Your task to perform on an android device: add a contact in the contacts app Image 0: 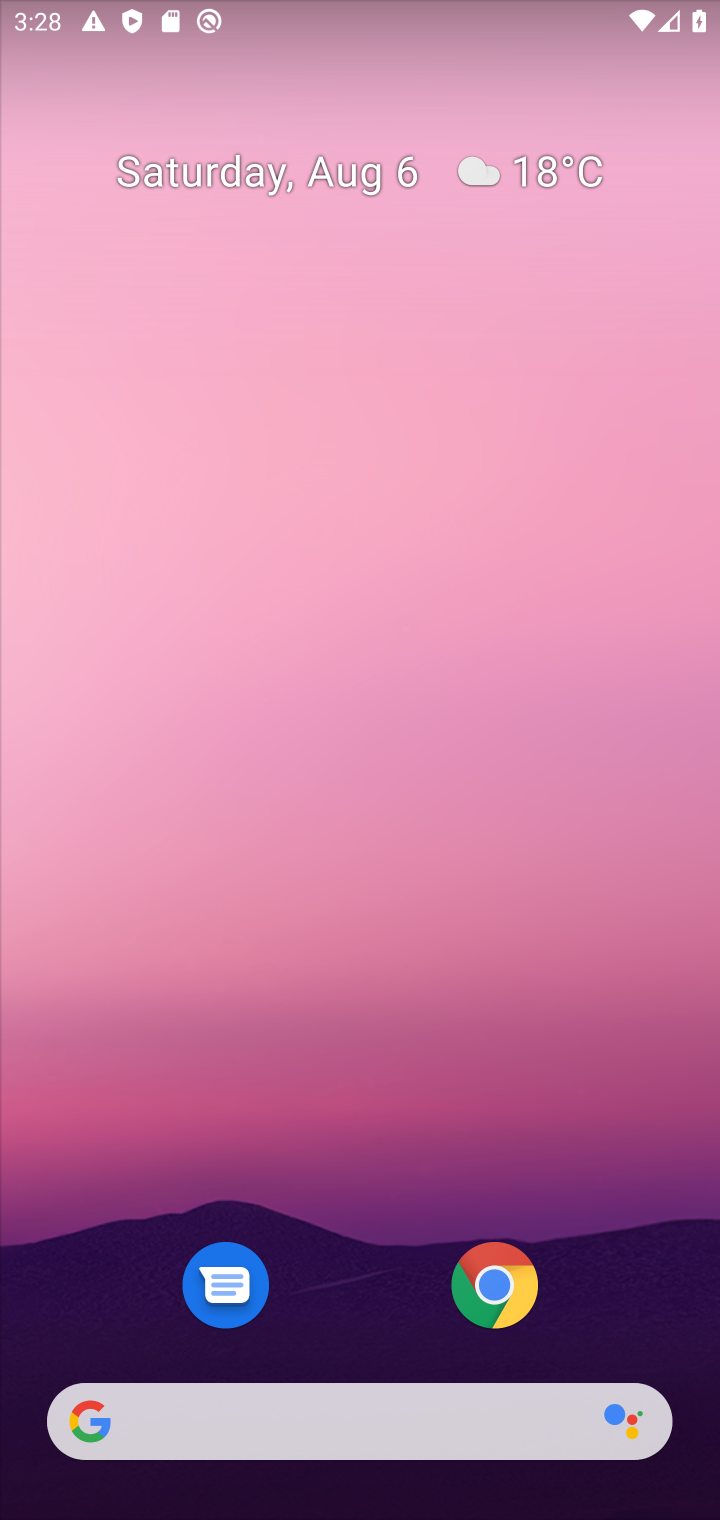
Step 0: press home button
Your task to perform on an android device: add a contact in the contacts app Image 1: 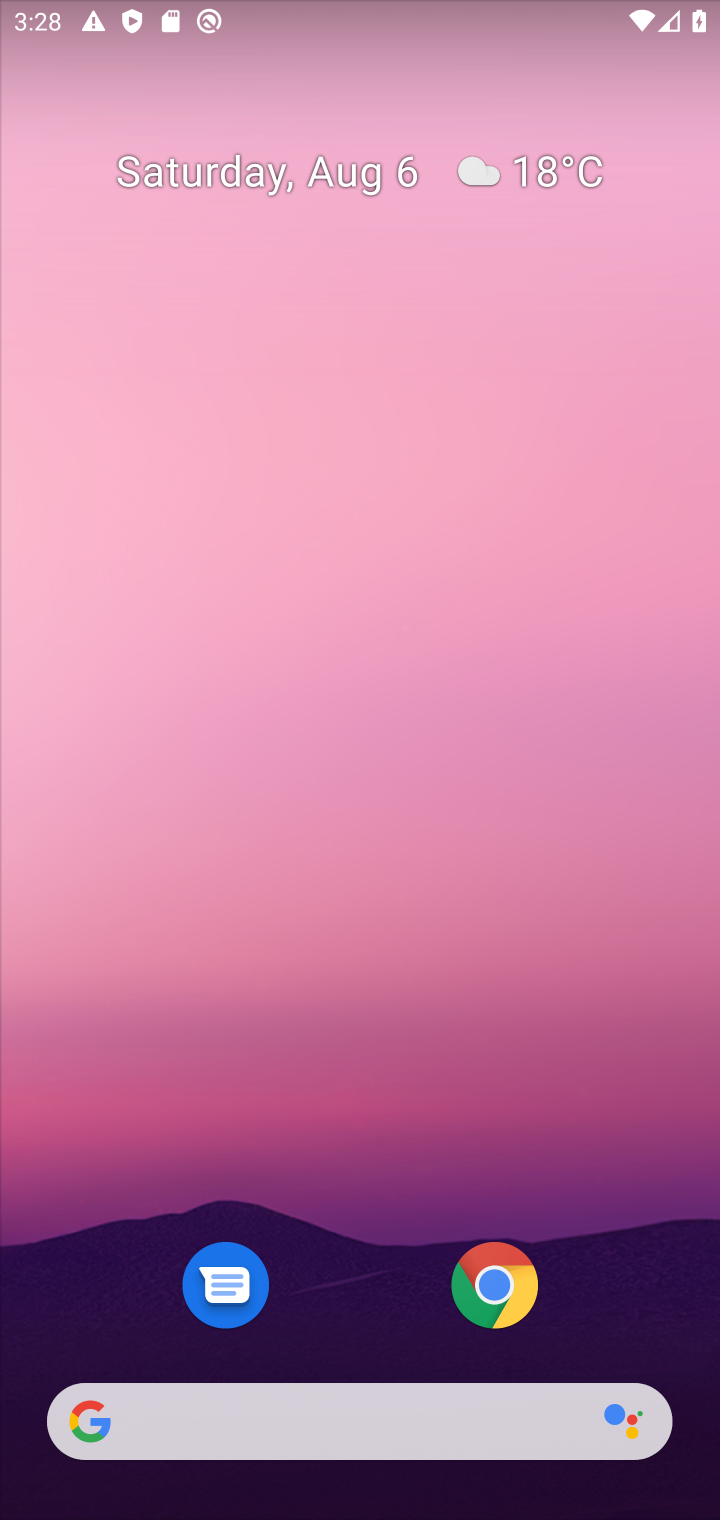
Step 1: drag from (377, 1321) to (396, 223)
Your task to perform on an android device: add a contact in the contacts app Image 2: 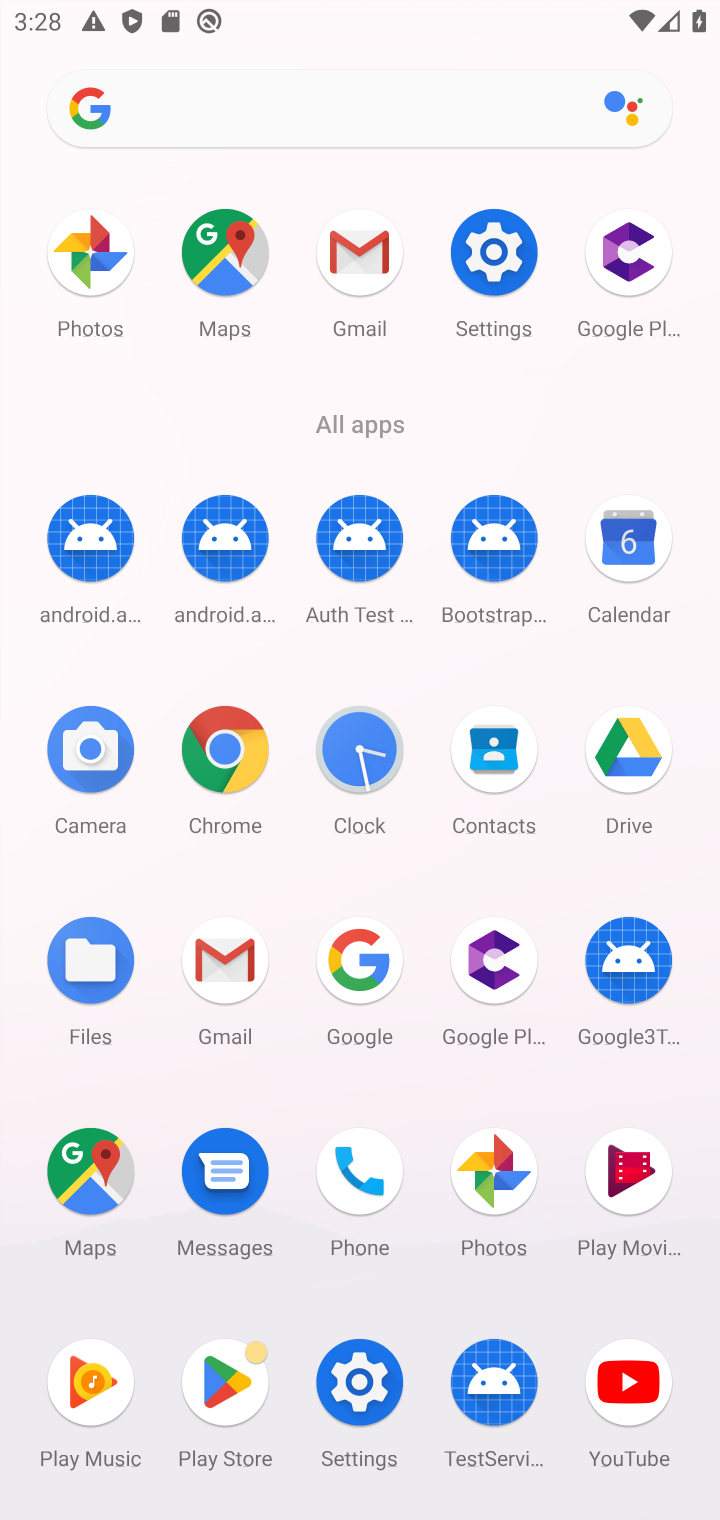
Step 2: click (488, 742)
Your task to perform on an android device: add a contact in the contacts app Image 3: 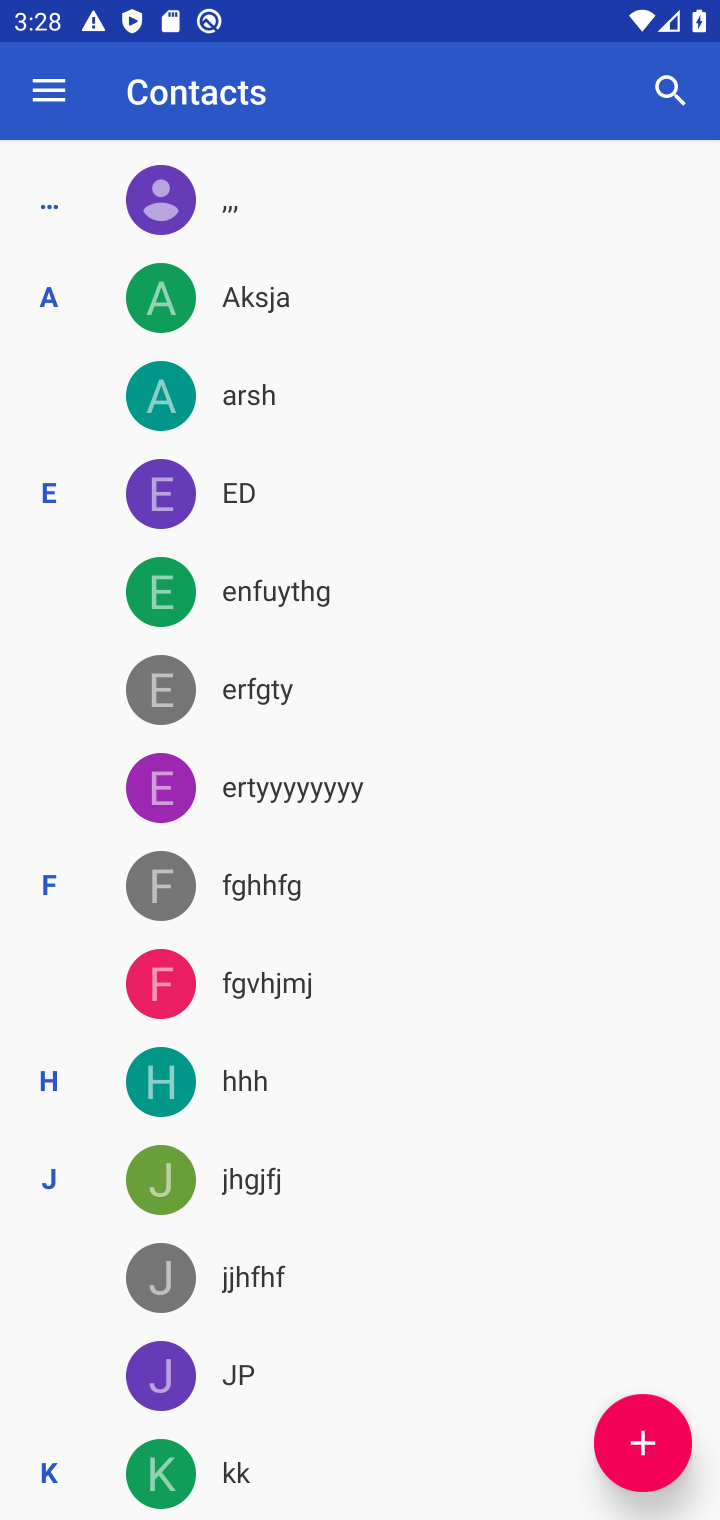
Step 3: click (638, 1434)
Your task to perform on an android device: add a contact in the contacts app Image 4: 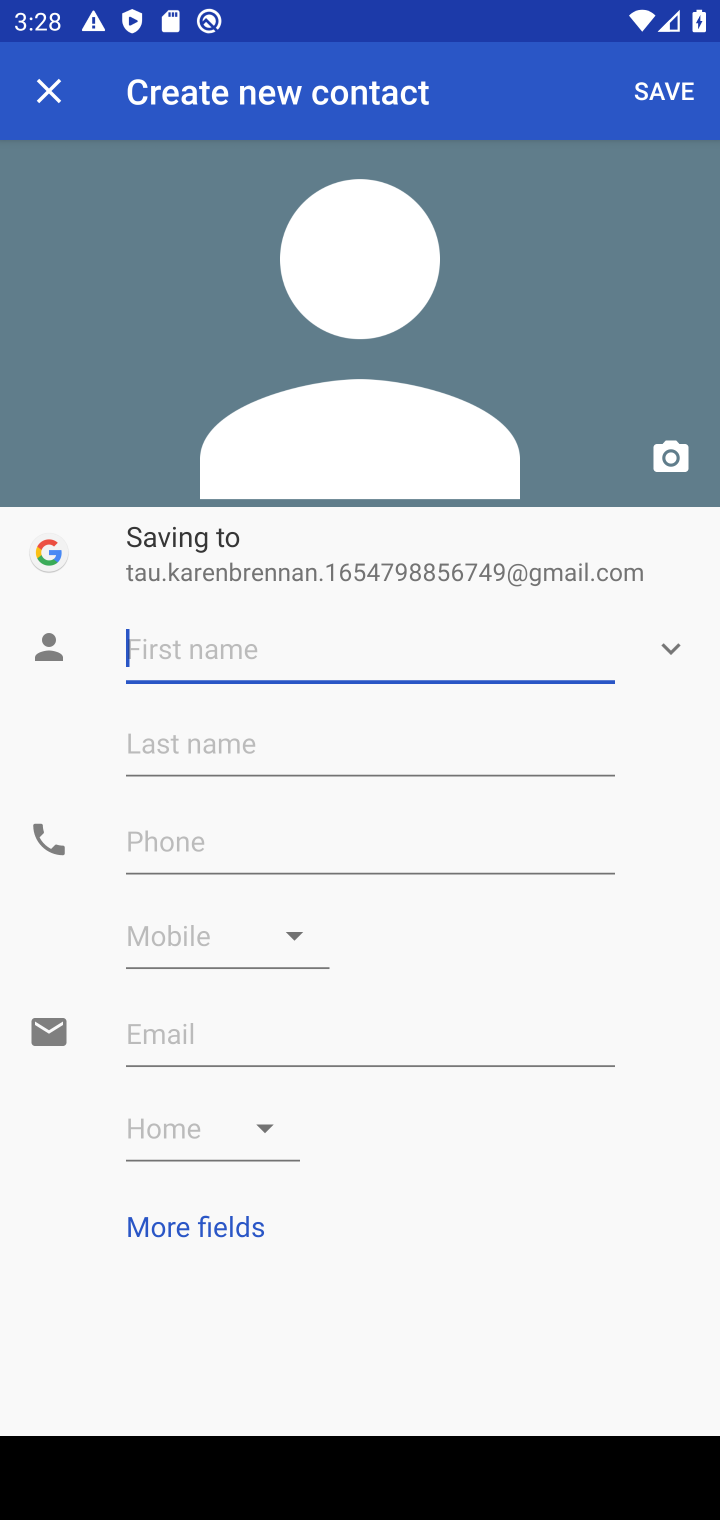
Step 4: type "hgctrt"
Your task to perform on an android device: add a contact in the contacts app Image 5: 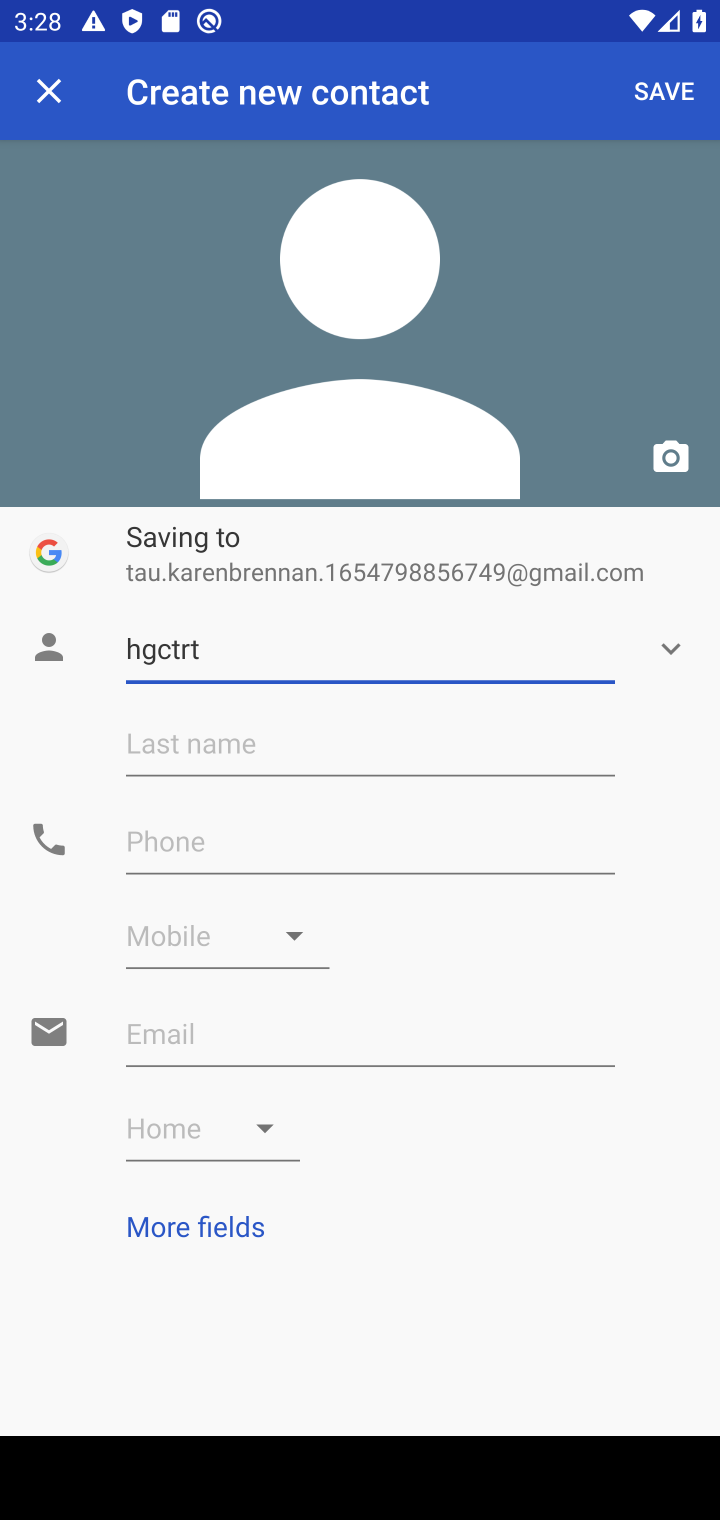
Step 5: click (667, 82)
Your task to perform on an android device: add a contact in the contacts app Image 6: 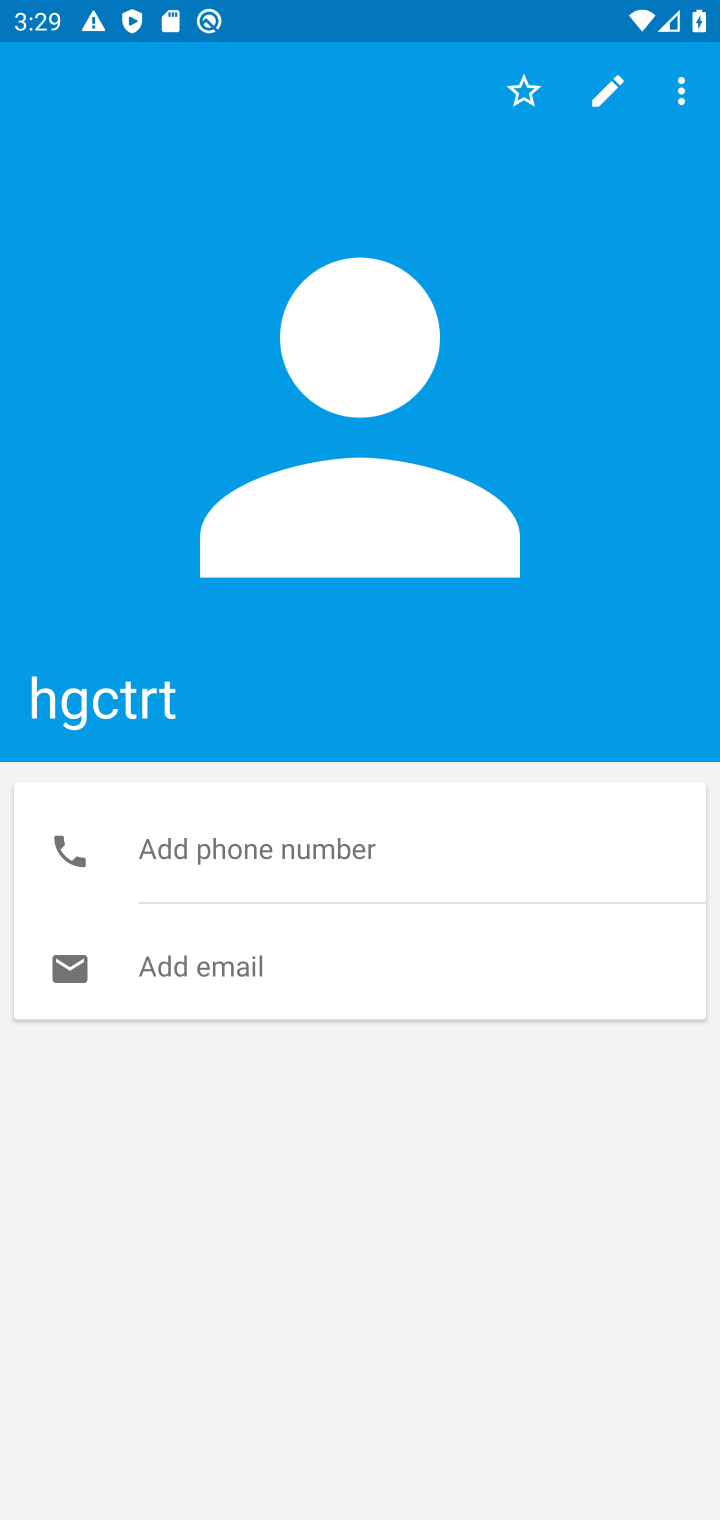
Step 6: task complete